Your task to perform on an android device: set the stopwatch Image 0: 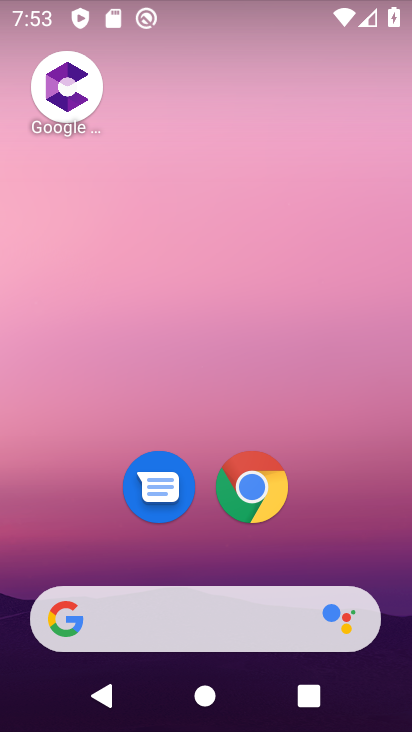
Step 0: drag from (229, 722) to (231, 88)
Your task to perform on an android device: set the stopwatch Image 1: 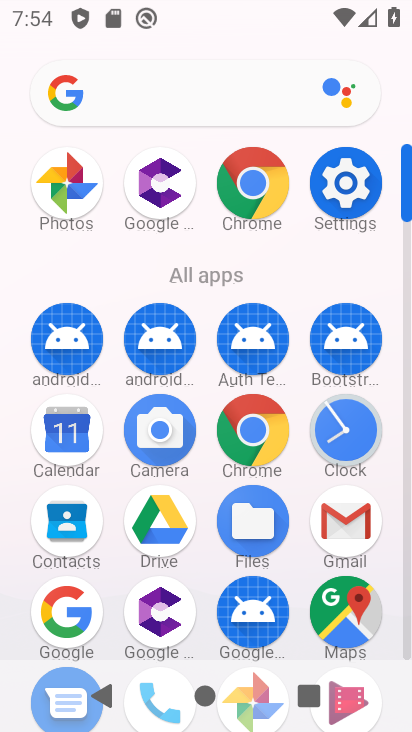
Step 1: click (347, 437)
Your task to perform on an android device: set the stopwatch Image 2: 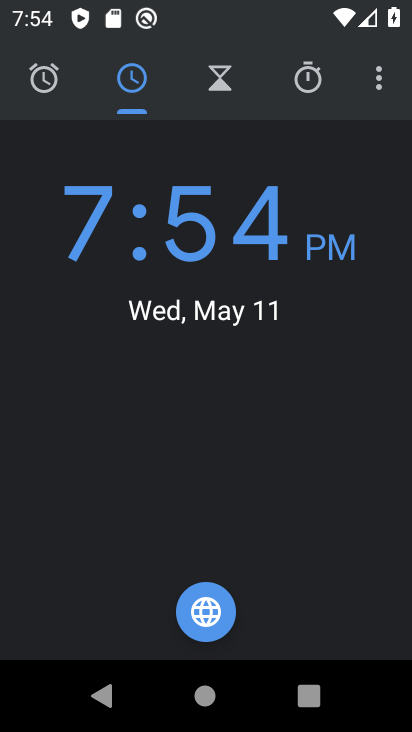
Step 2: click (304, 81)
Your task to perform on an android device: set the stopwatch Image 3: 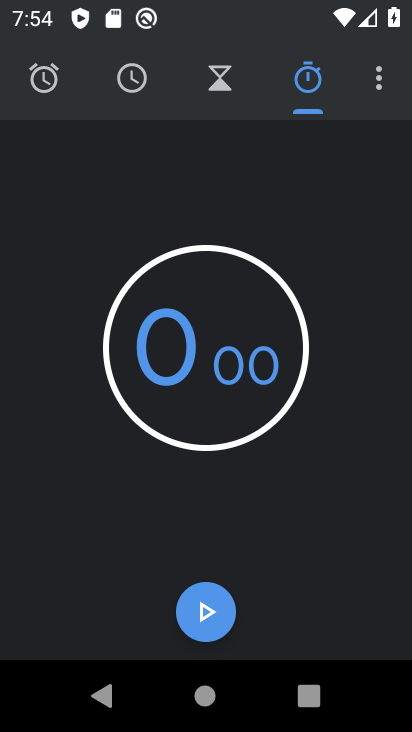
Step 3: click (208, 352)
Your task to perform on an android device: set the stopwatch Image 4: 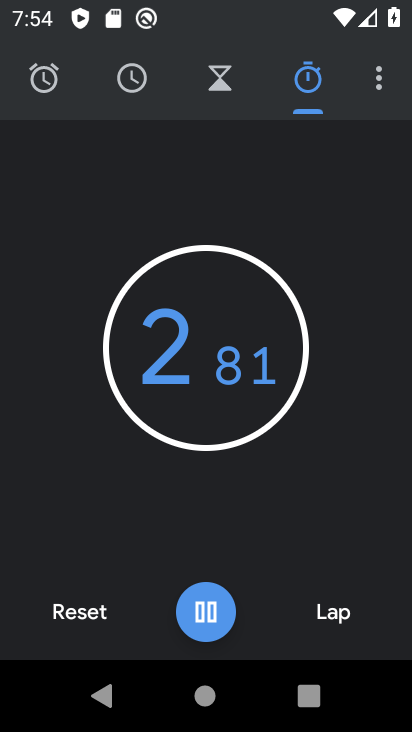
Step 4: type "67"
Your task to perform on an android device: set the stopwatch Image 5: 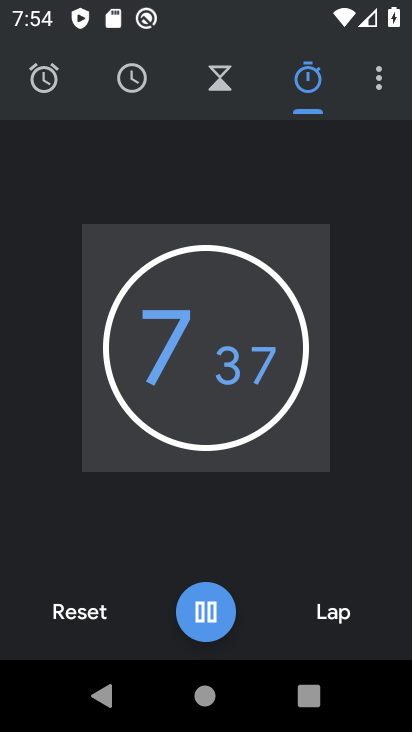
Step 5: task complete